Your task to perform on an android device: See recent photos Image 0: 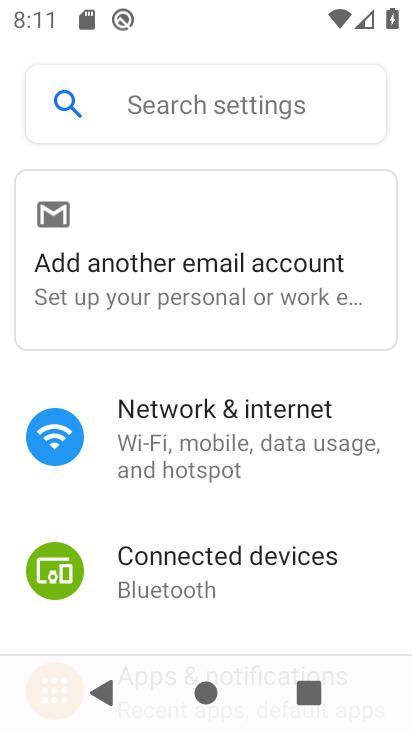
Step 0: press home button
Your task to perform on an android device: See recent photos Image 1: 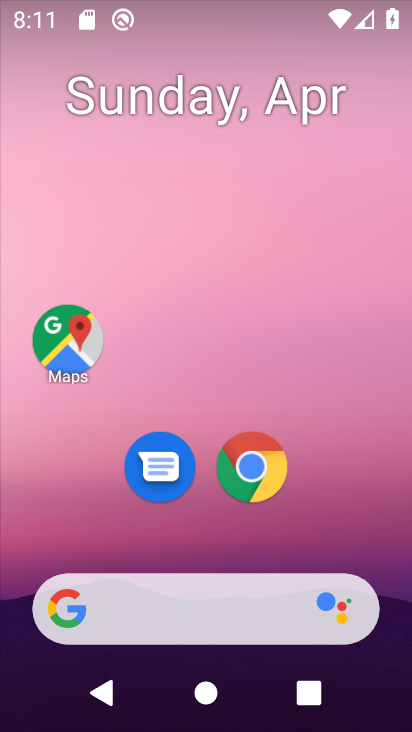
Step 1: drag from (332, 540) to (252, 62)
Your task to perform on an android device: See recent photos Image 2: 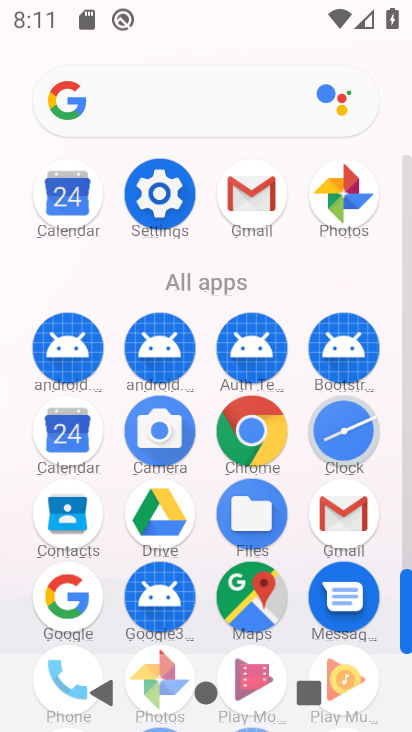
Step 2: click (335, 196)
Your task to perform on an android device: See recent photos Image 3: 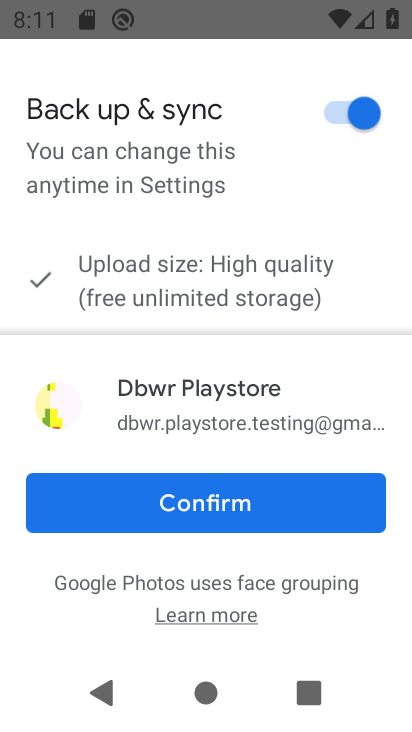
Step 3: click (279, 490)
Your task to perform on an android device: See recent photos Image 4: 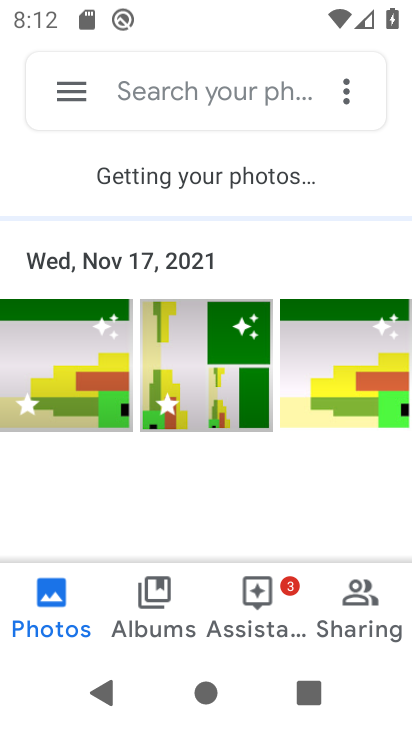
Step 4: task complete